Your task to perform on an android device: stop showing notifications on the lock screen Image 0: 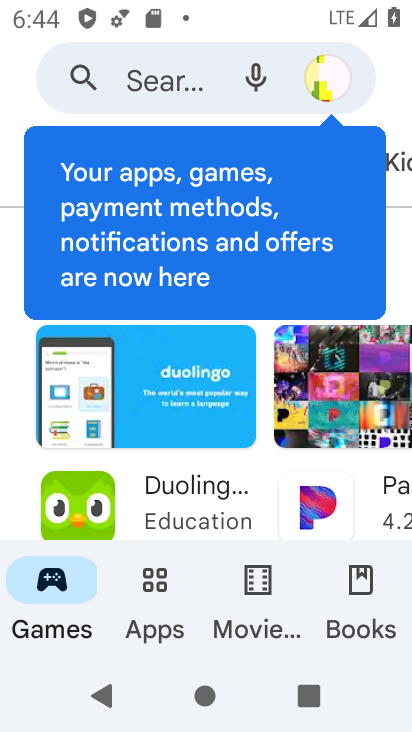
Step 0: press home button
Your task to perform on an android device: stop showing notifications on the lock screen Image 1: 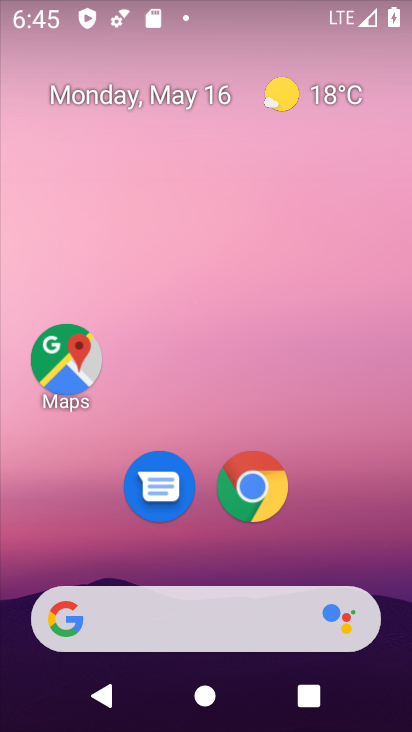
Step 1: drag from (360, 506) to (262, 78)
Your task to perform on an android device: stop showing notifications on the lock screen Image 2: 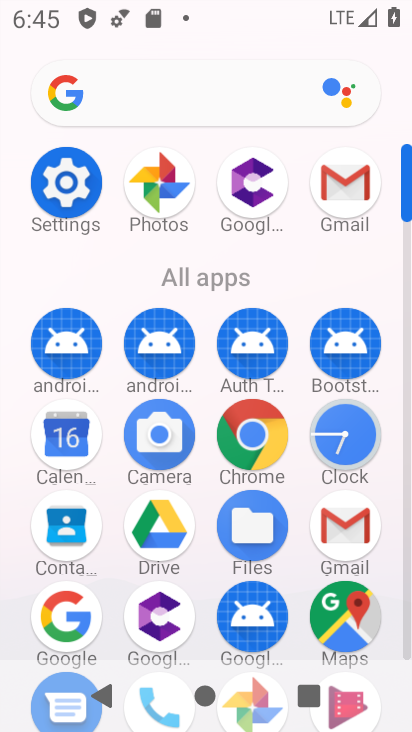
Step 2: click (54, 184)
Your task to perform on an android device: stop showing notifications on the lock screen Image 3: 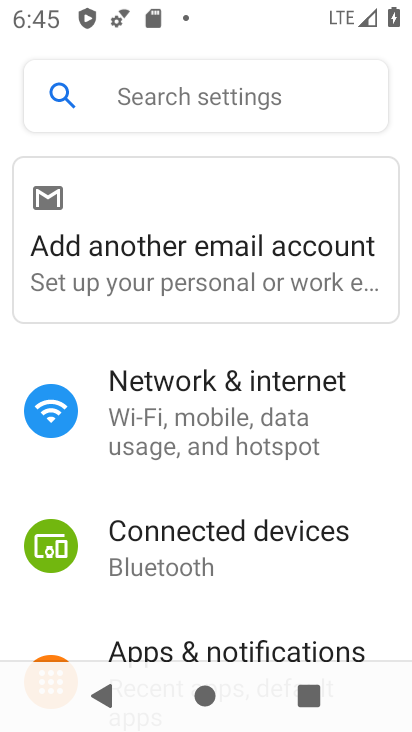
Step 3: click (248, 644)
Your task to perform on an android device: stop showing notifications on the lock screen Image 4: 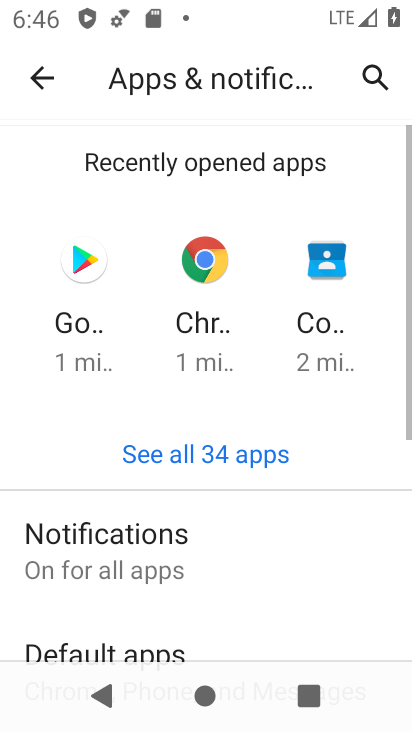
Step 4: drag from (235, 595) to (123, 62)
Your task to perform on an android device: stop showing notifications on the lock screen Image 5: 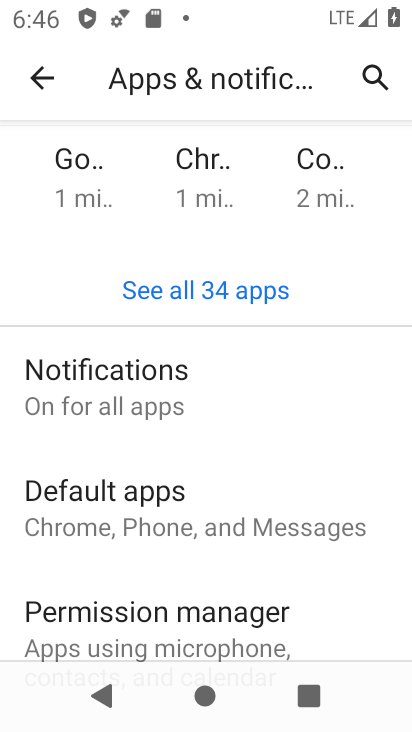
Step 5: click (122, 372)
Your task to perform on an android device: stop showing notifications on the lock screen Image 6: 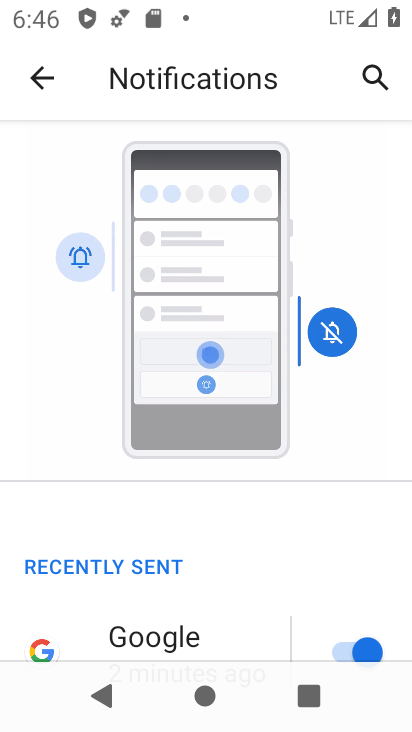
Step 6: drag from (260, 533) to (260, 130)
Your task to perform on an android device: stop showing notifications on the lock screen Image 7: 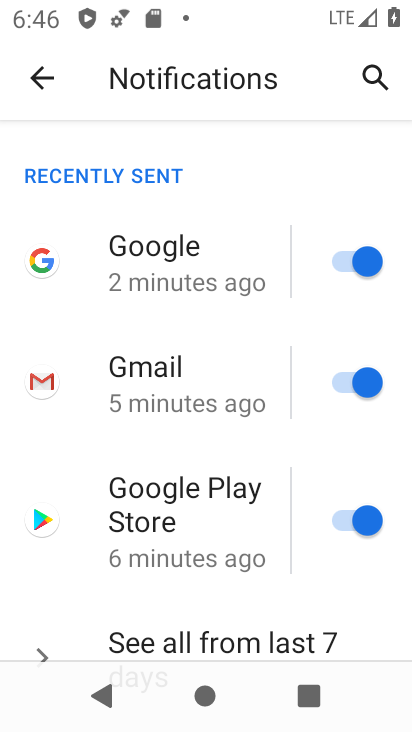
Step 7: drag from (253, 566) to (236, 235)
Your task to perform on an android device: stop showing notifications on the lock screen Image 8: 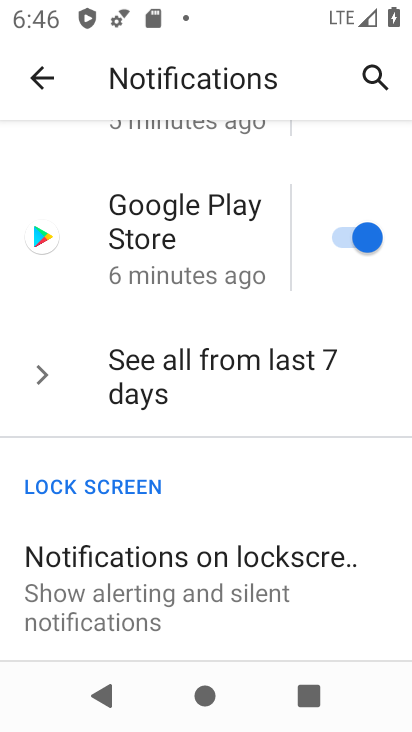
Step 8: click (241, 552)
Your task to perform on an android device: stop showing notifications on the lock screen Image 9: 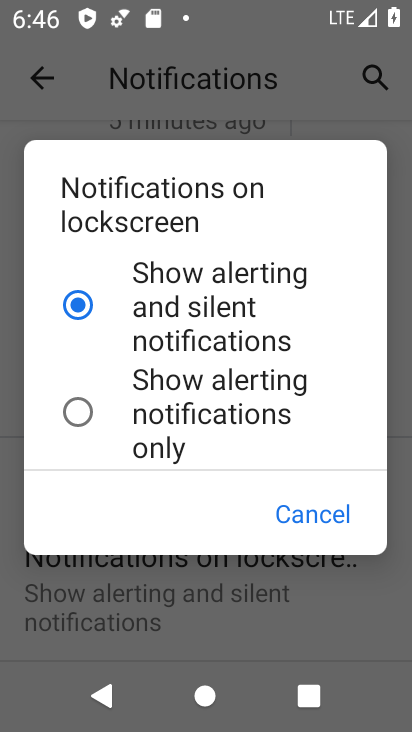
Step 9: drag from (294, 419) to (260, 143)
Your task to perform on an android device: stop showing notifications on the lock screen Image 10: 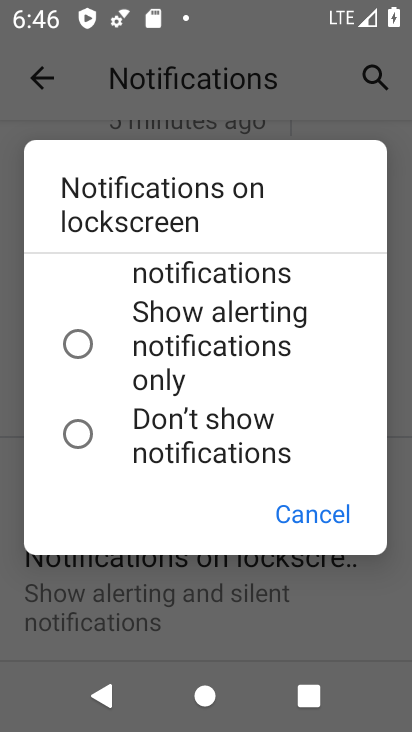
Step 10: click (81, 437)
Your task to perform on an android device: stop showing notifications on the lock screen Image 11: 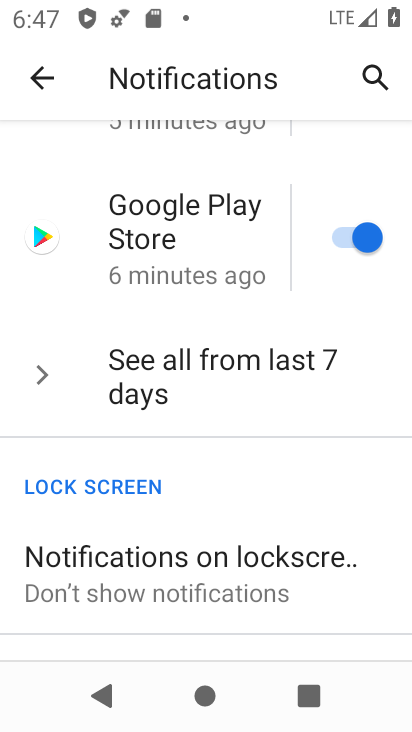
Step 11: task complete